Your task to perform on an android device: open app "Fetch Rewards" (install if not already installed) Image 0: 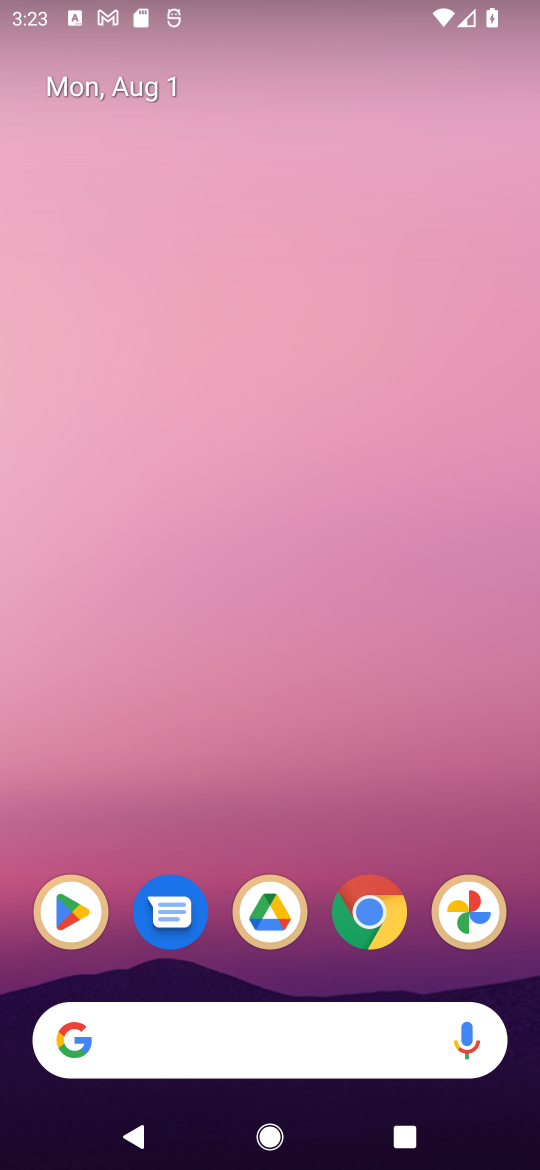
Step 0: click (68, 933)
Your task to perform on an android device: open app "Fetch Rewards" (install if not already installed) Image 1: 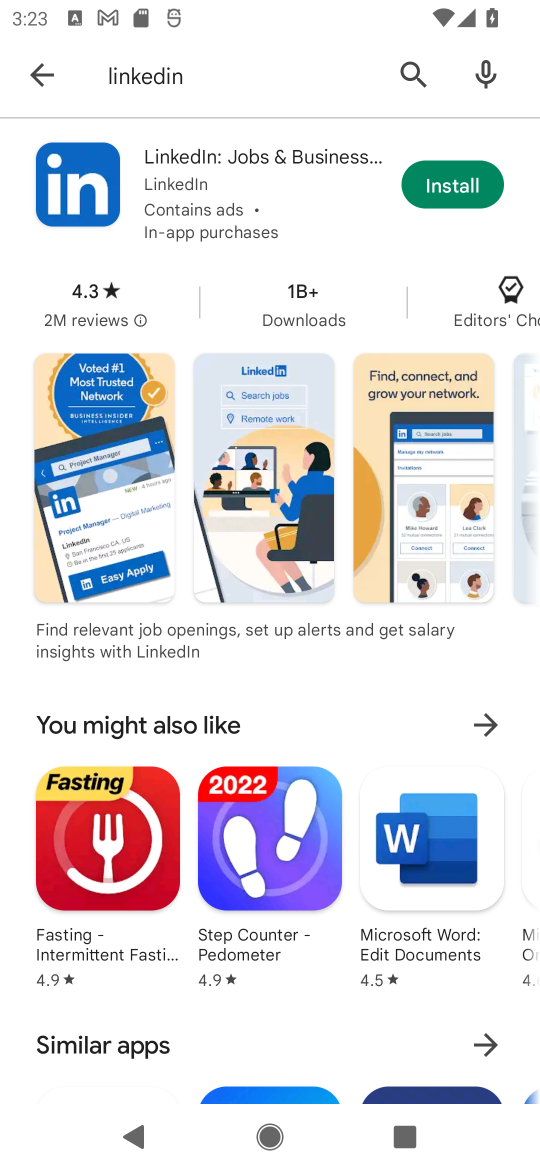
Step 1: click (402, 72)
Your task to perform on an android device: open app "Fetch Rewards" (install if not already installed) Image 2: 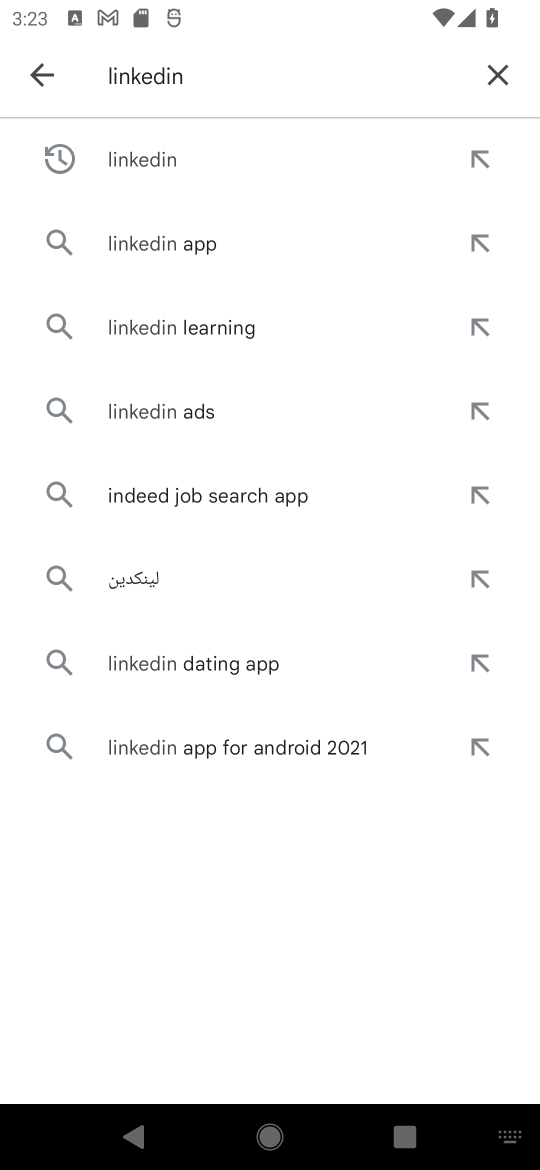
Step 2: click (491, 77)
Your task to perform on an android device: open app "Fetch Rewards" (install if not already installed) Image 3: 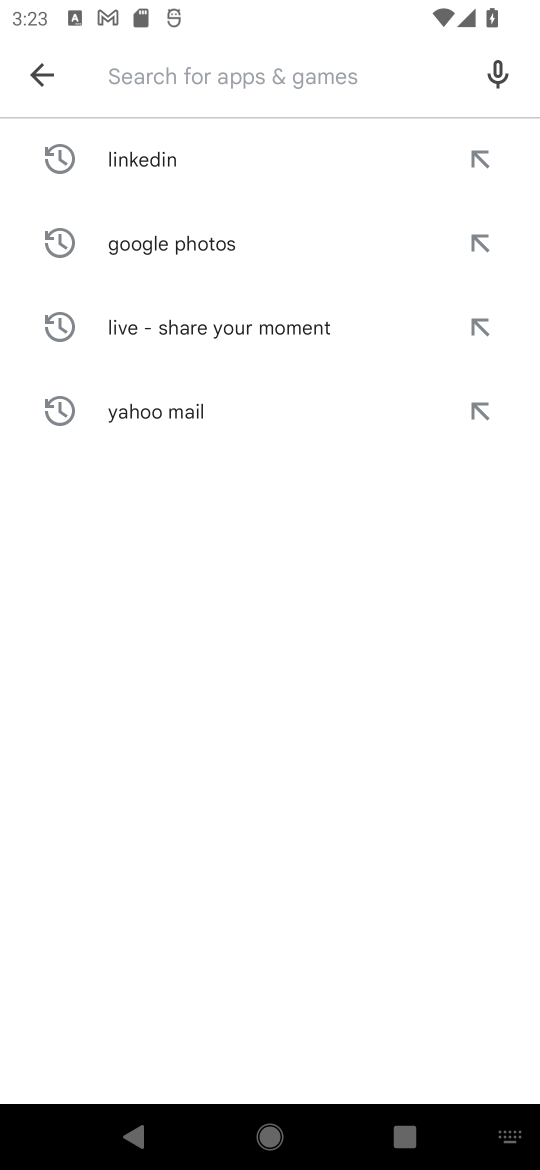
Step 3: click (273, 88)
Your task to perform on an android device: open app "Fetch Rewards" (install if not already installed) Image 4: 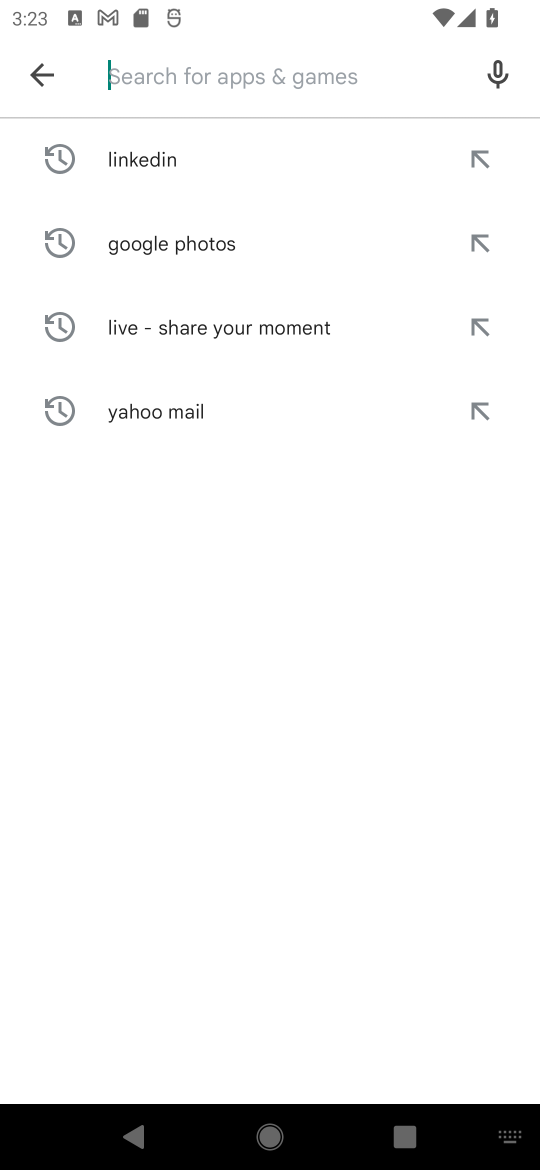
Step 4: type "Fetch Rewards"
Your task to perform on an android device: open app "Fetch Rewards" (install if not already installed) Image 5: 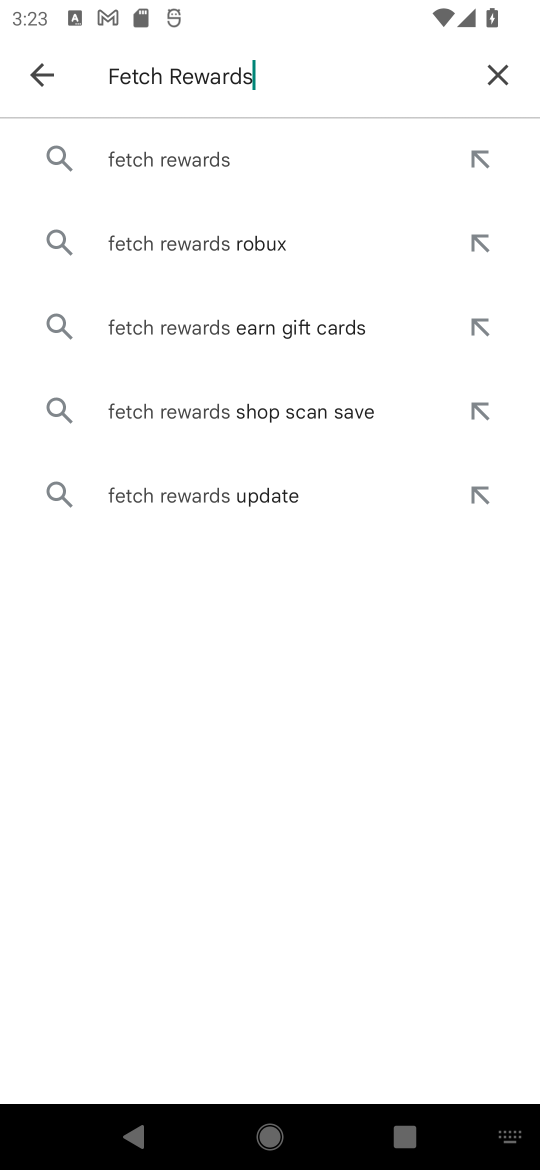
Step 5: click (134, 164)
Your task to perform on an android device: open app "Fetch Rewards" (install if not already installed) Image 6: 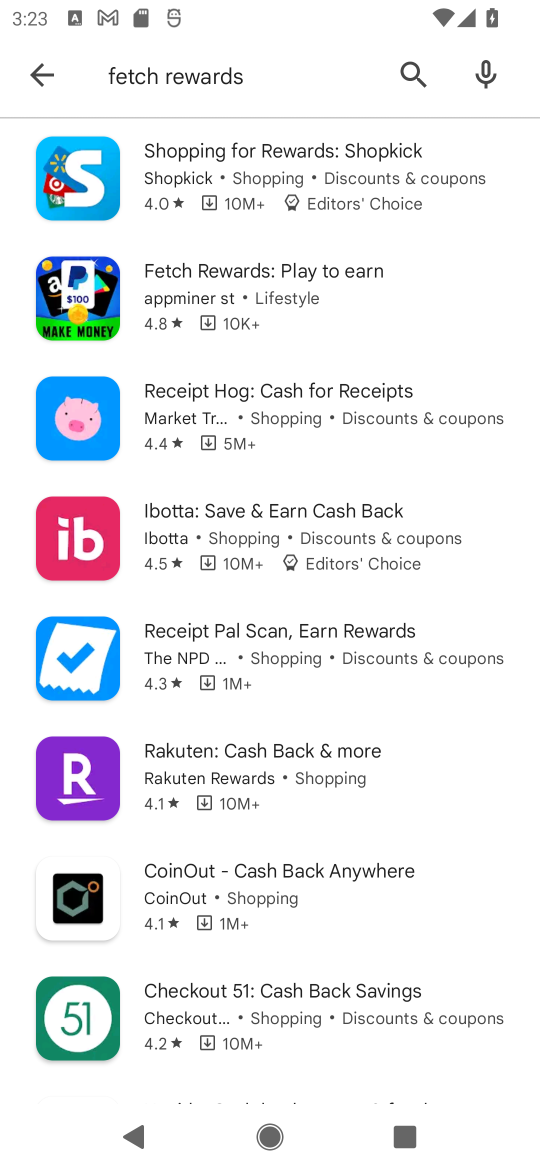
Step 6: click (145, 309)
Your task to perform on an android device: open app "Fetch Rewards" (install if not already installed) Image 7: 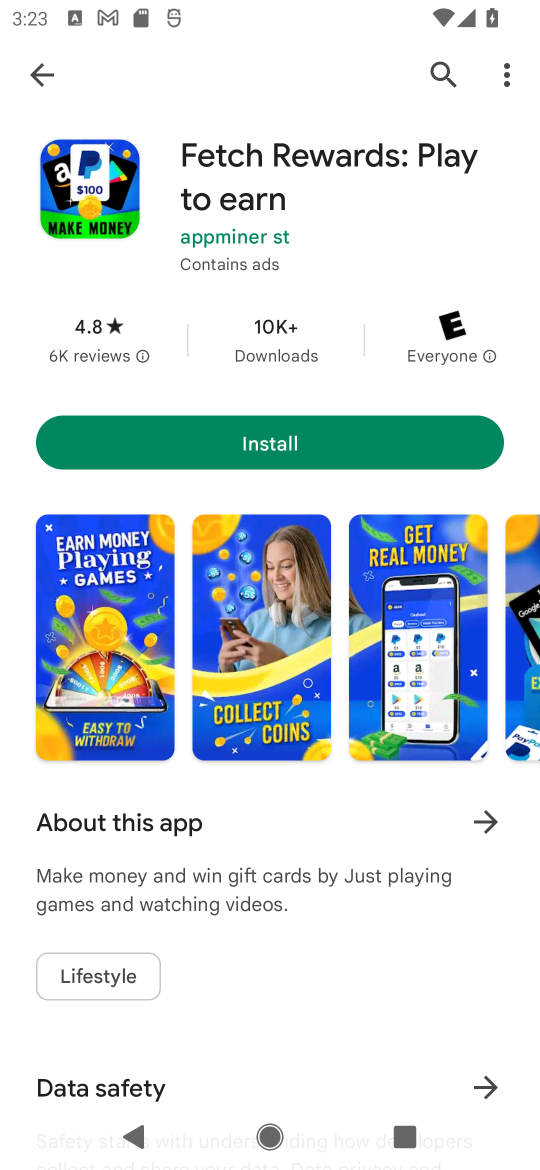
Step 7: click (281, 434)
Your task to perform on an android device: open app "Fetch Rewards" (install if not already installed) Image 8: 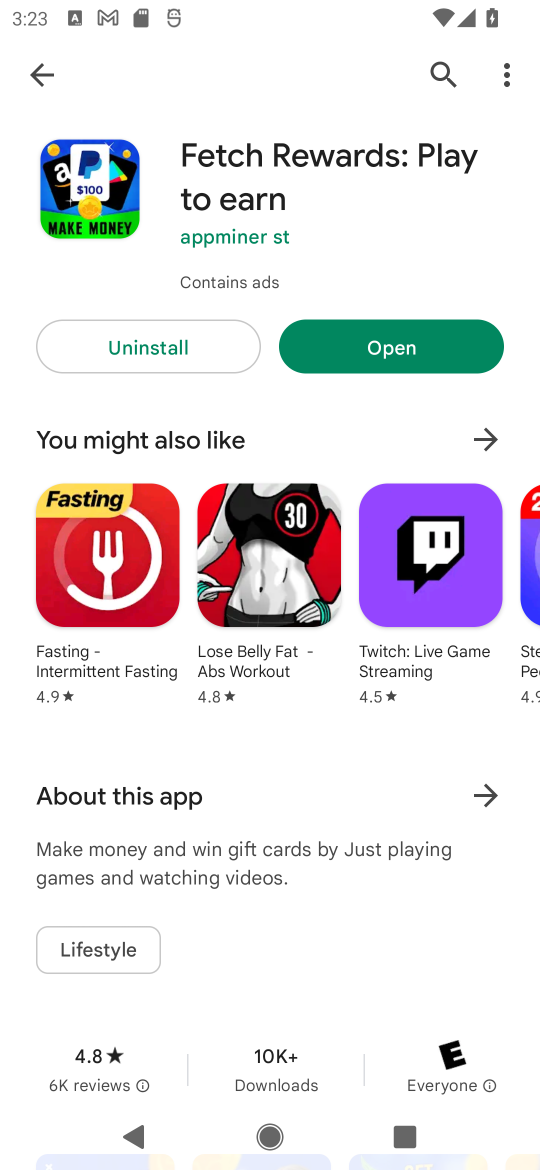
Step 8: click (389, 352)
Your task to perform on an android device: open app "Fetch Rewards" (install if not already installed) Image 9: 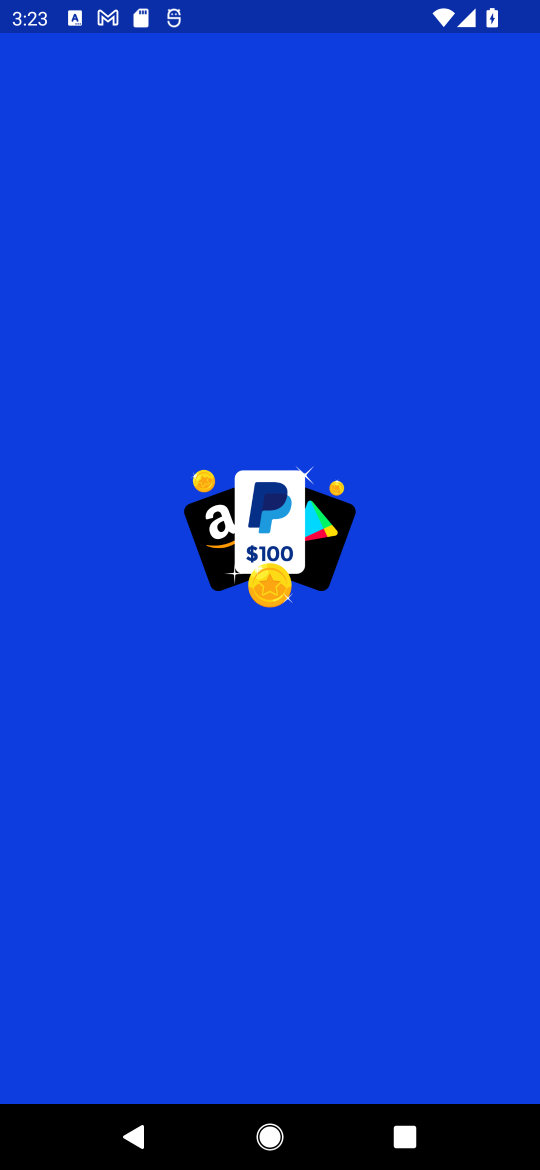
Step 9: task complete